Your task to perform on an android device: Open Google Chrome and open the bookmarks view Image 0: 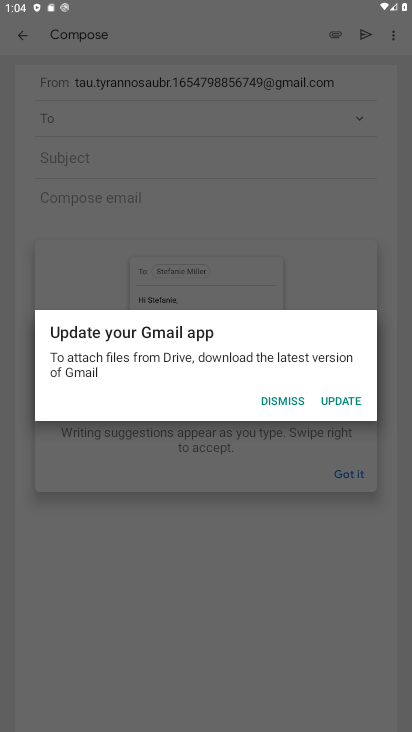
Step 0: press home button
Your task to perform on an android device: Open Google Chrome and open the bookmarks view Image 1: 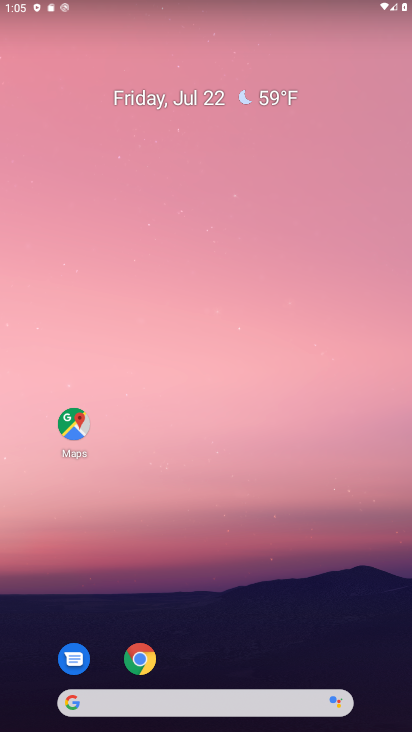
Step 1: click (138, 649)
Your task to perform on an android device: Open Google Chrome and open the bookmarks view Image 2: 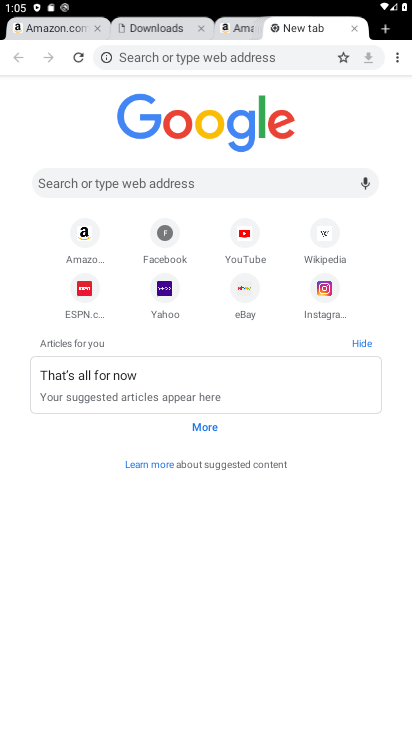
Step 2: click (394, 56)
Your task to perform on an android device: Open Google Chrome and open the bookmarks view Image 3: 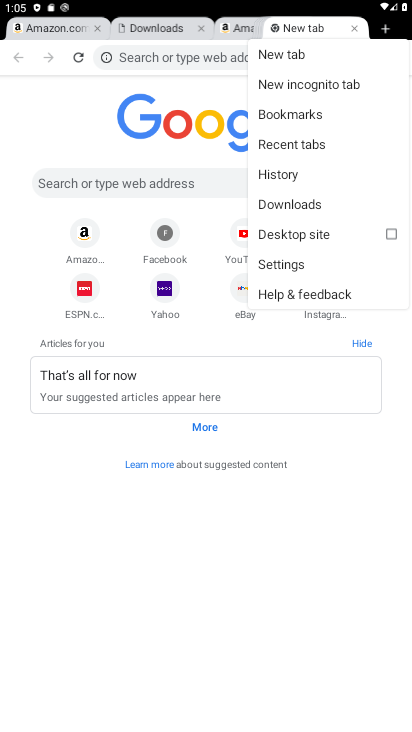
Step 3: click (328, 114)
Your task to perform on an android device: Open Google Chrome and open the bookmarks view Image 4: 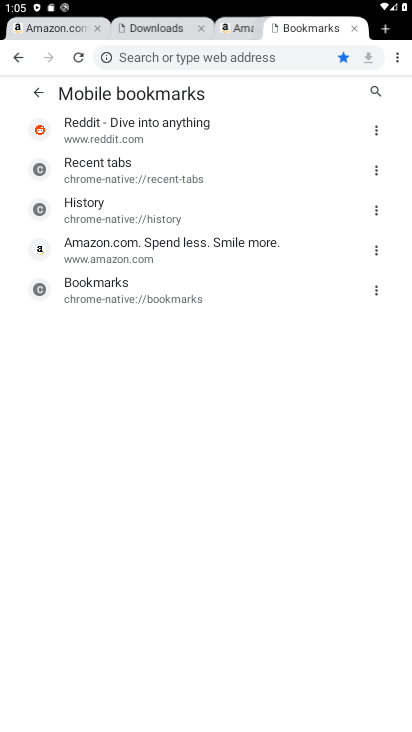
Step 4: task complete